Your task to perform on an android device: turn off priority inbox in the gmail app Image 0: 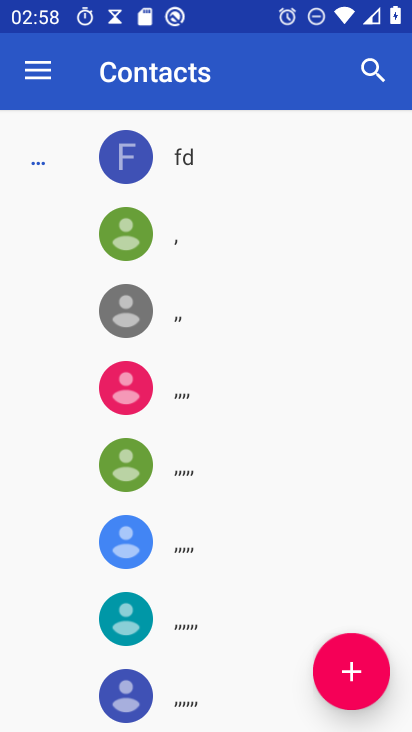
Step 0: press home button
Your task to perform on an android device: turn off priority inbox in the gmail app Image 1: 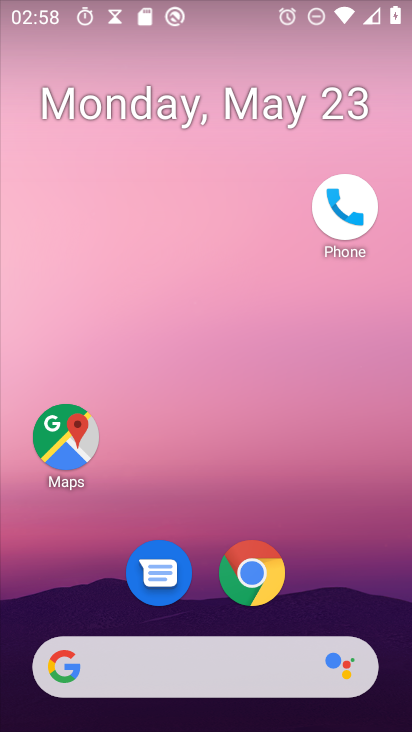
Step 1: drag from (151, 673) to (287, 284)
Your task to perform on an android device: turn off priority inbox in the gmail app Image 2: 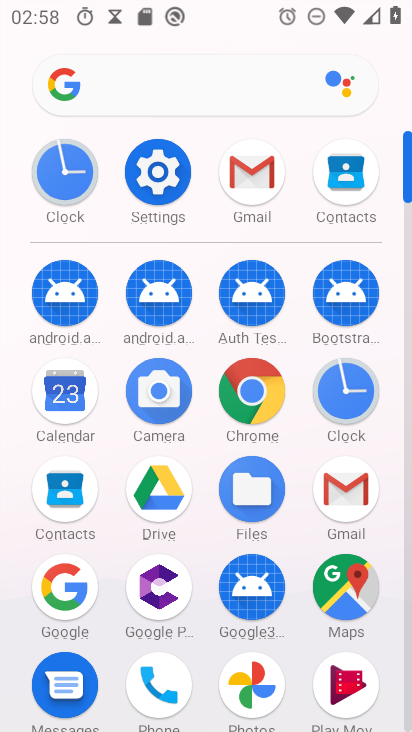
Step 2: click (257, 190)
Your task to perform on an android device: turn off priority inbox in the gmail app Image 3: 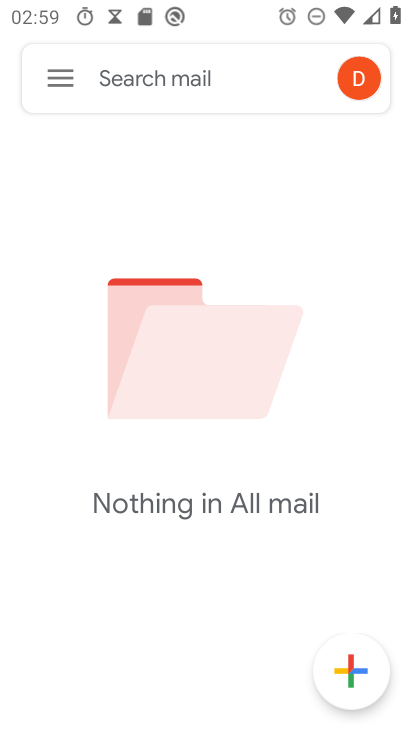
Step 3: click (65, 77)
Your task to perform on an android device: turn off priority inbox in the gmail app Image 4: 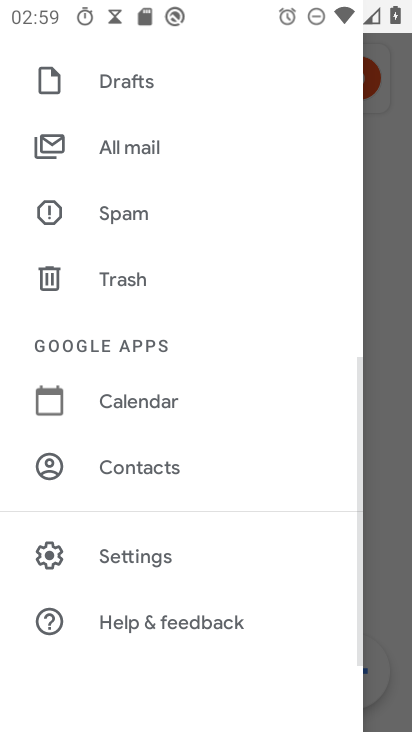
Step 4: click (159, 551)
Your task to perform on an android device: turn off priority inbox in the gmail app Image 5: 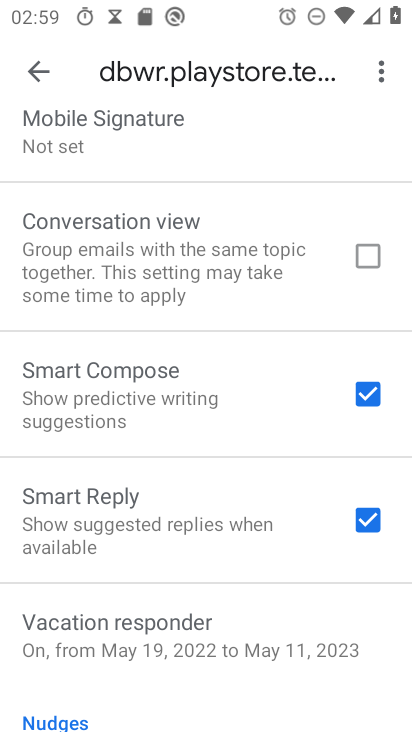
Step 5: drag from (279, 213) to (220, 566)
Your task to perform on an android device: turn off priority inbox in the gmail app Image 6: 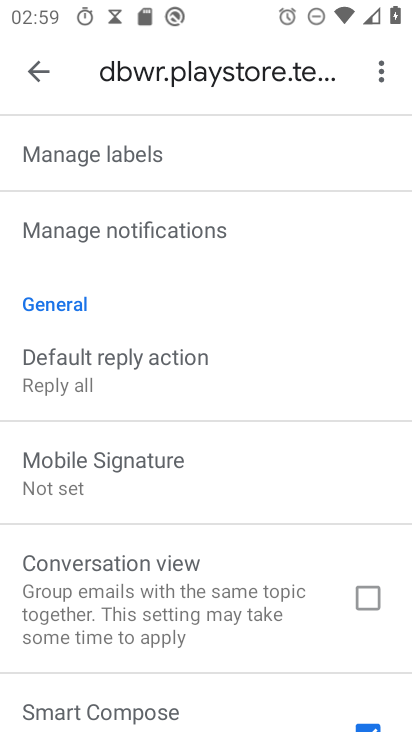
Step 6: drag from (264, 225) to (214, 577)
Your task to perform on an android device: turn off priority inbox in the gmail app Image 7: 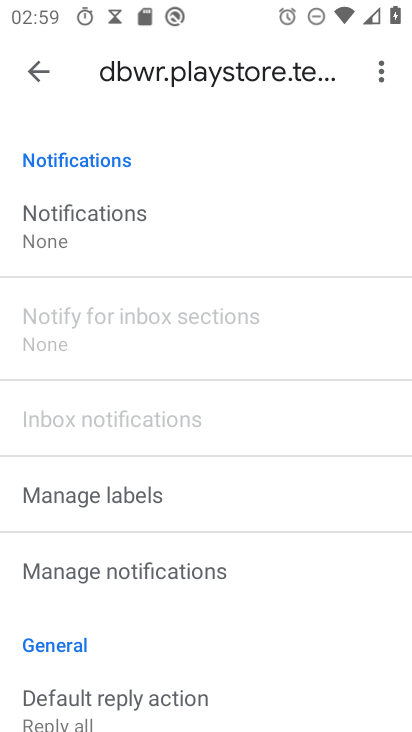
Step 7: drag from (247, 223) to (230, 624)
Your task to perform on an android device: turn off priority inbox in the gmail app Image 8: 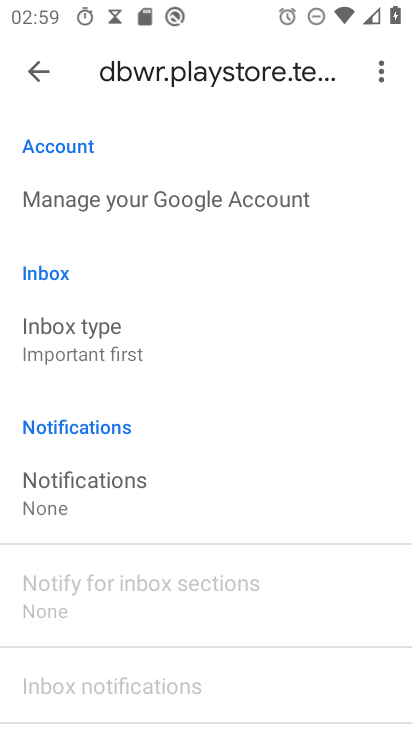
Step 8: click (113, 350)
Your task to perform on an android device: turn off priority inbox in the gmail app Image 9: 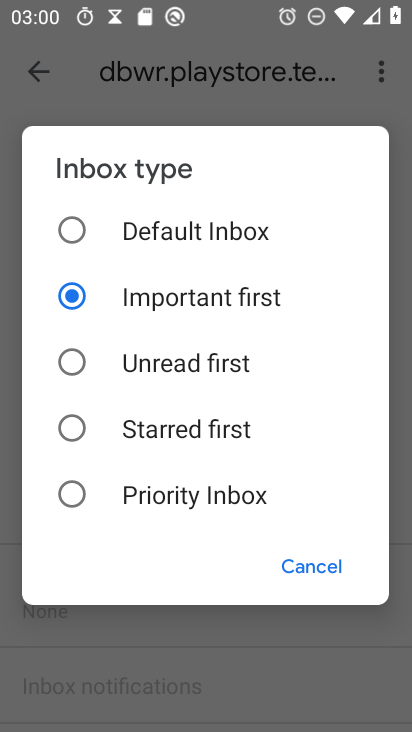
Step 9: task complete